Your task to perform on an android device: Go to notification settings Image 0: 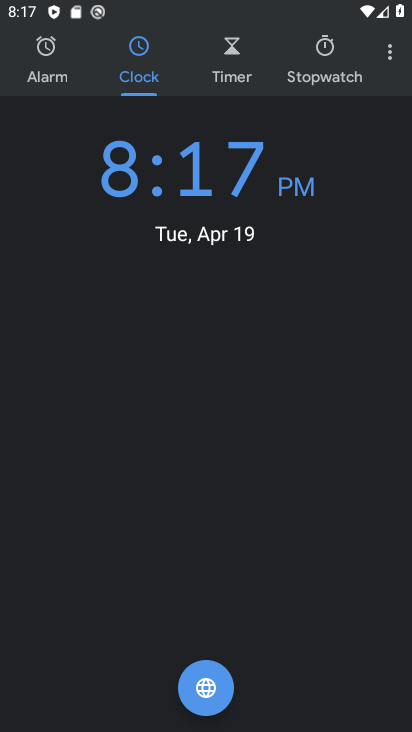
Step 0: press home button
Your task to perform on an android device: Go to notification settings Image 1: 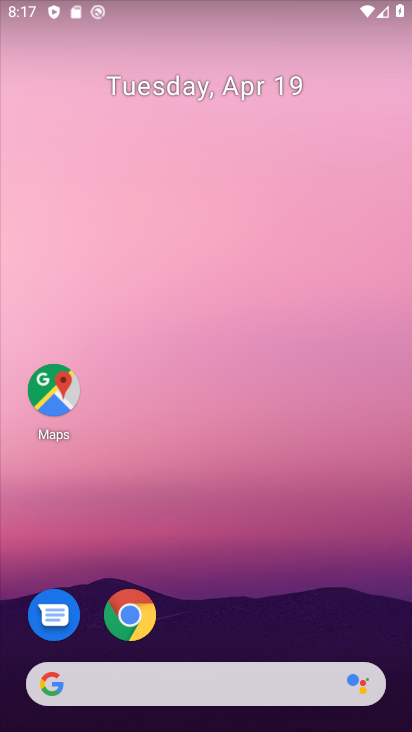
Step 1: drag from (187, 409) to (237, 4)
Your task to perform on an android device: Go to notification settings Image 2: 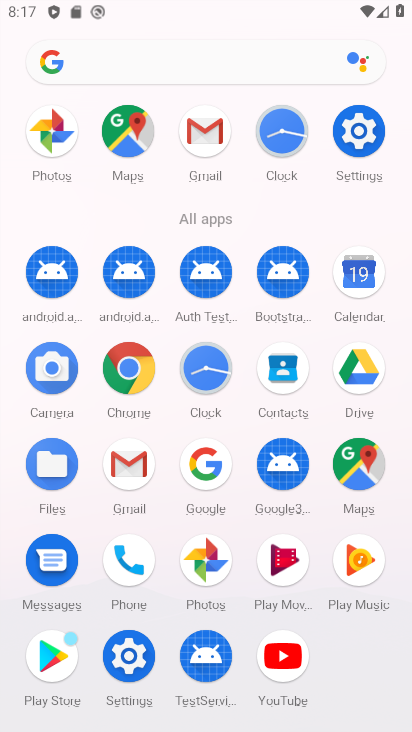
Step 2: click (361, 128)
Your task to perform on an android device: Go to notification settings Image 3: 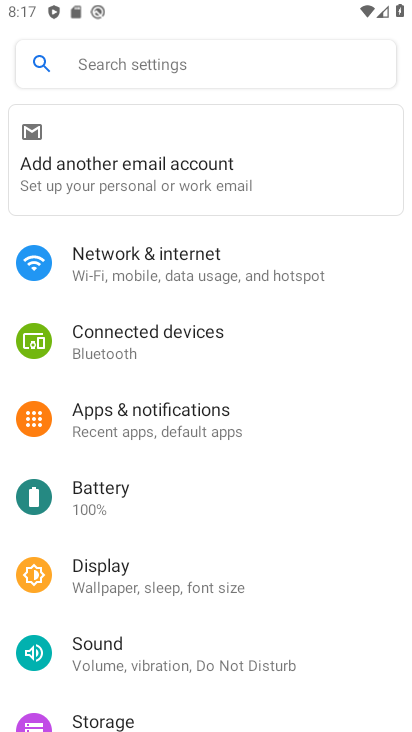
Step 3: click (160, 421)
Your task to perform on an android device: Go to notification settings Image 4: 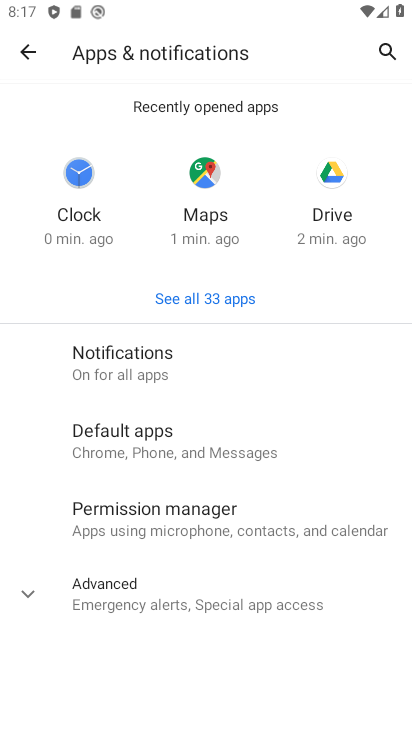
Step 4: click (168, 369)
Your task to perform on an android device: Go to notification settings Image 5: 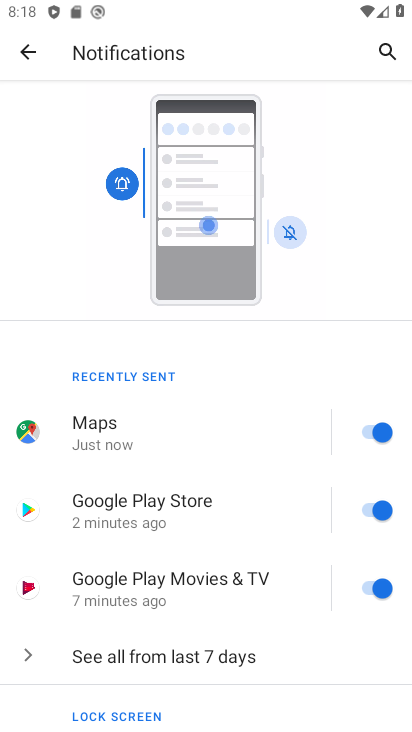
Step 5: task complete